Your task to perform on an android device: make emails show in primary in the gmail app Image 0: 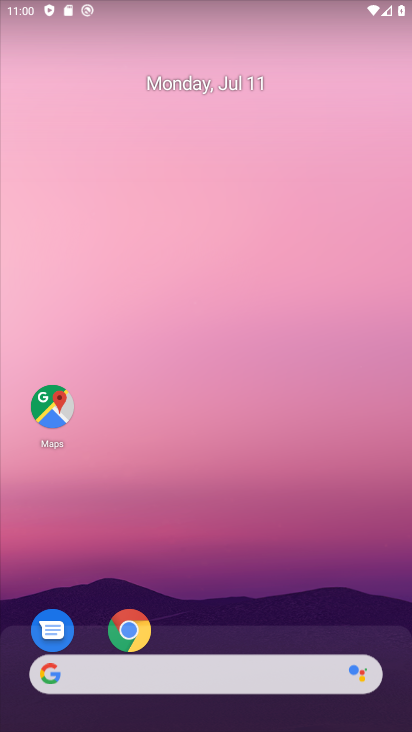
Step 0: drag from (210, 643) to (212, 172)
Your task to perform on an android device: make emails show in primary in the gmail app Image 1: 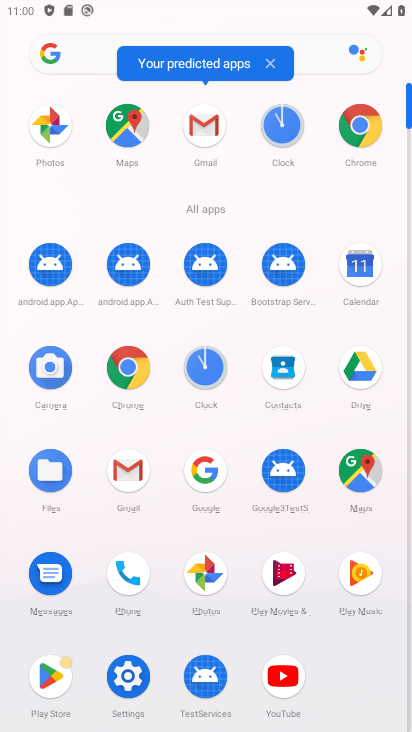
Step 1: click (212, 108)
Your task to perform on an android device: make emails show in primary in the gmail app Image 2: 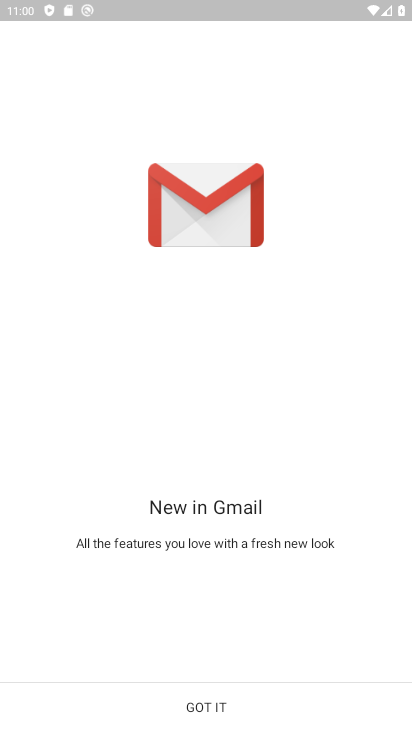
Step 2: click (169, 719)
Your task to perform on an android device: make emails show in primary in the gmail app Image 3: 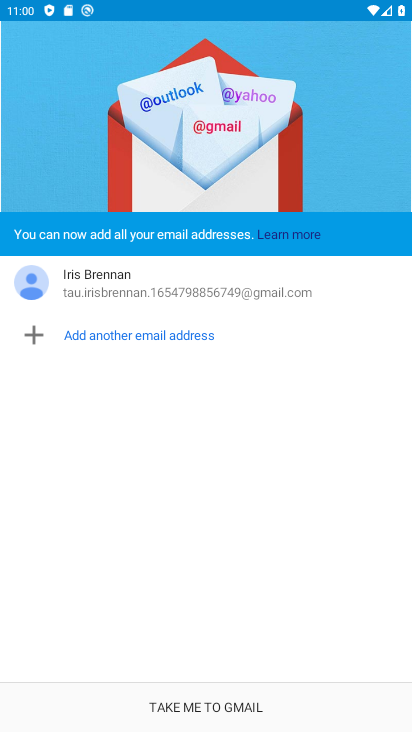
Step 3: click (169, 719)
Your task to perform on an android device: make emails show in primary in the gmail app Image 4: 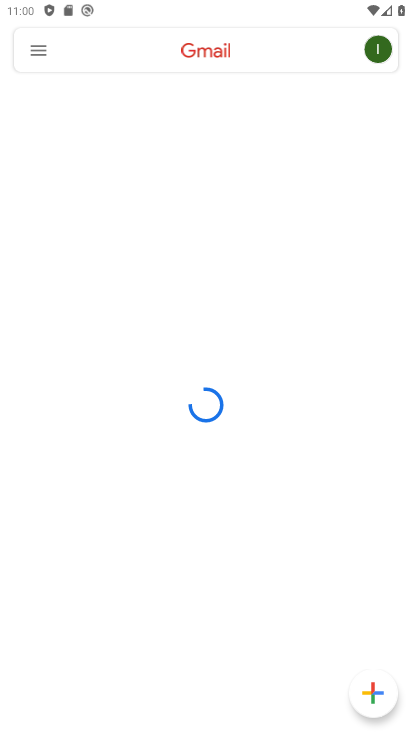
Step 4: click (38, 40)
Your task to perform on an android device: make emails show in primary in the gmail app Image 5: 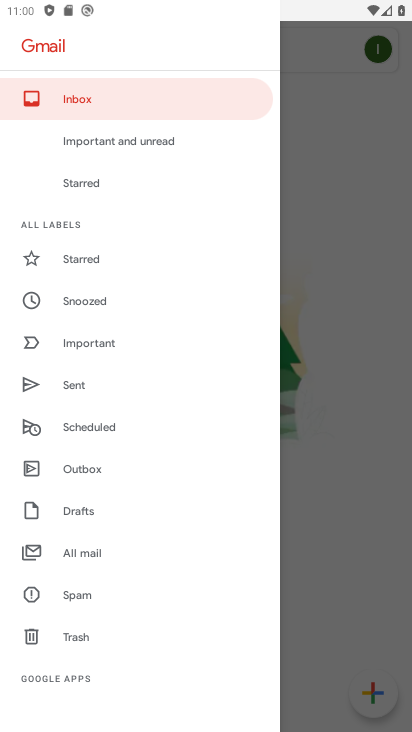
Step 5: task complete